Your task to perform on an android device: open app "Nova Launcher" (install if not already installed) and enter user name: "haggard@gmail.com" and password: "sadder" Image 0: 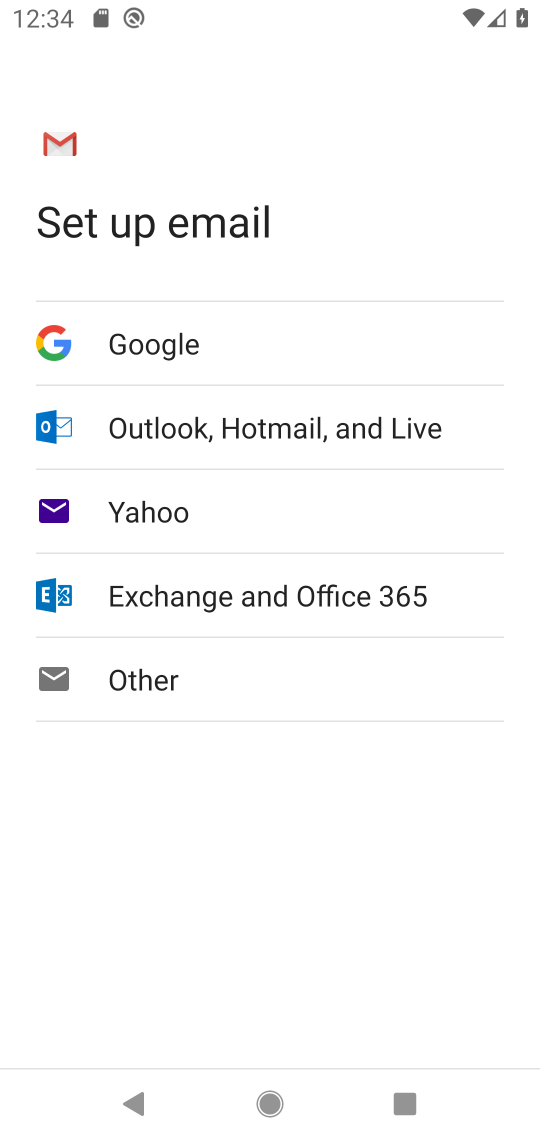
Step 0: press home button
Your task to perform on an android device: open app "Nova Launcher" (install if not already installed) and enter user name: "haggard@gmail.com" and password: "sadder" Image 1: 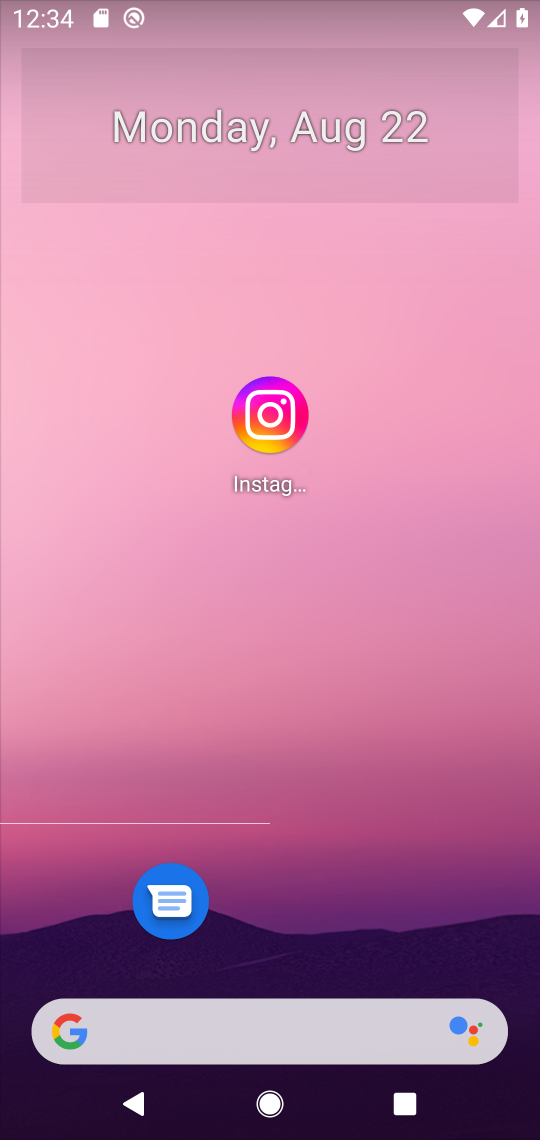
Step 1: drag from (361, 961) to (455, 118)
Your task to perform on an android device: open app "Nova Launcher" (install if not already installed) and enter user name: "haggard@gmail.com" and password: "sadder" Image 2: 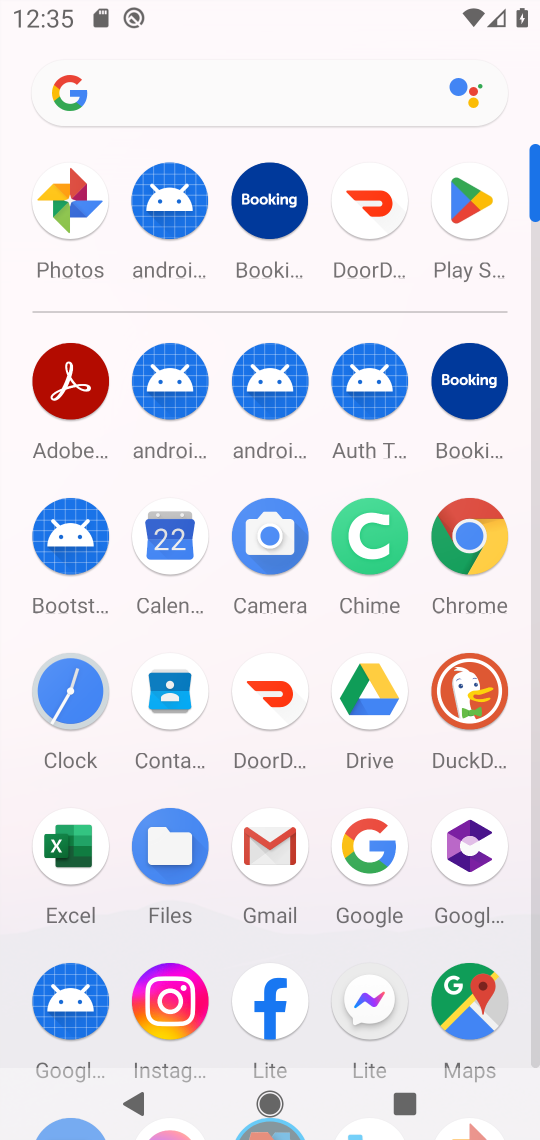
Step 2: click (449, 213)
Your task to perform on an android device: open app "Nova Launcher" (install if not already installed) and enter user name: "haggard@gmail.com" and password: "sadder" Image 3: 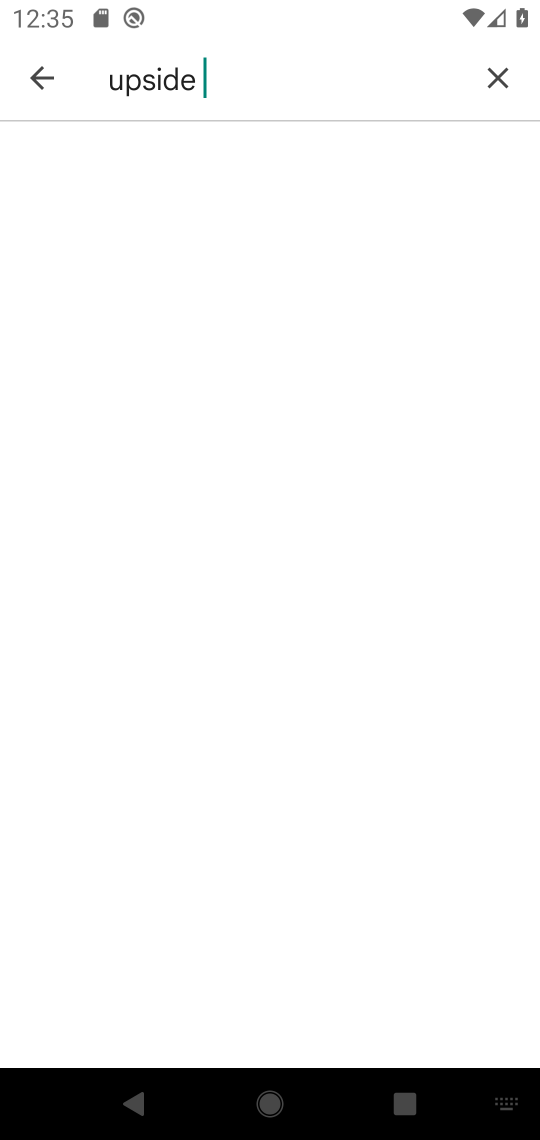
Step 3: click (483, 90)
Your task to perform on an android device: open app "Nova Launcher" (install if not already installed) and enter user name: "haggard@gmail.com" and password: "sadder" Image 4: 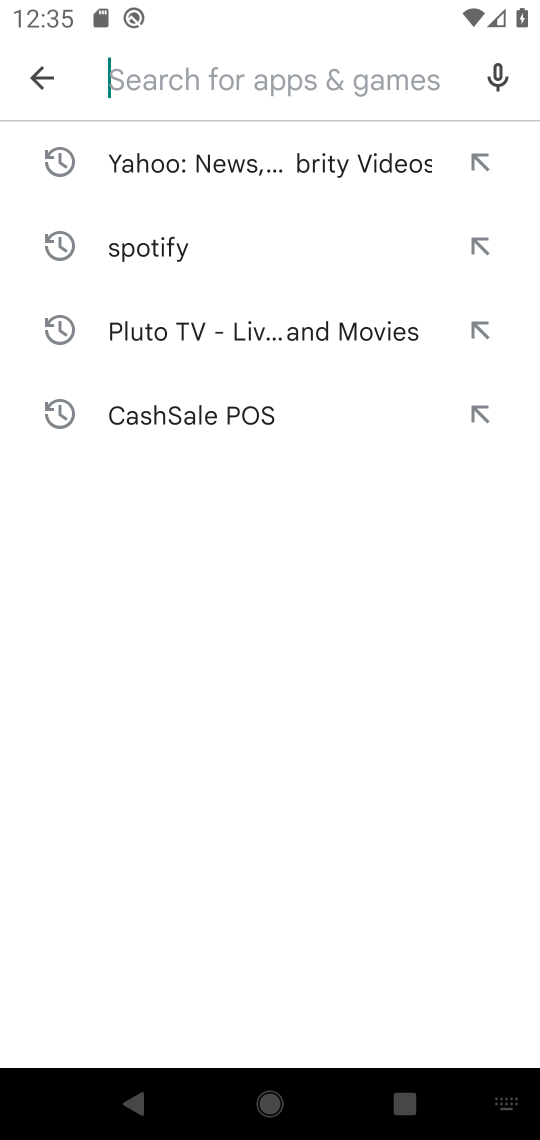
Step 4: type "nova"
Your task to perform on an android device: open app "Nova Launcher" (install if not already installed) and enter user name: "haggard@gmail.com" and password: "sadder" Image 5: 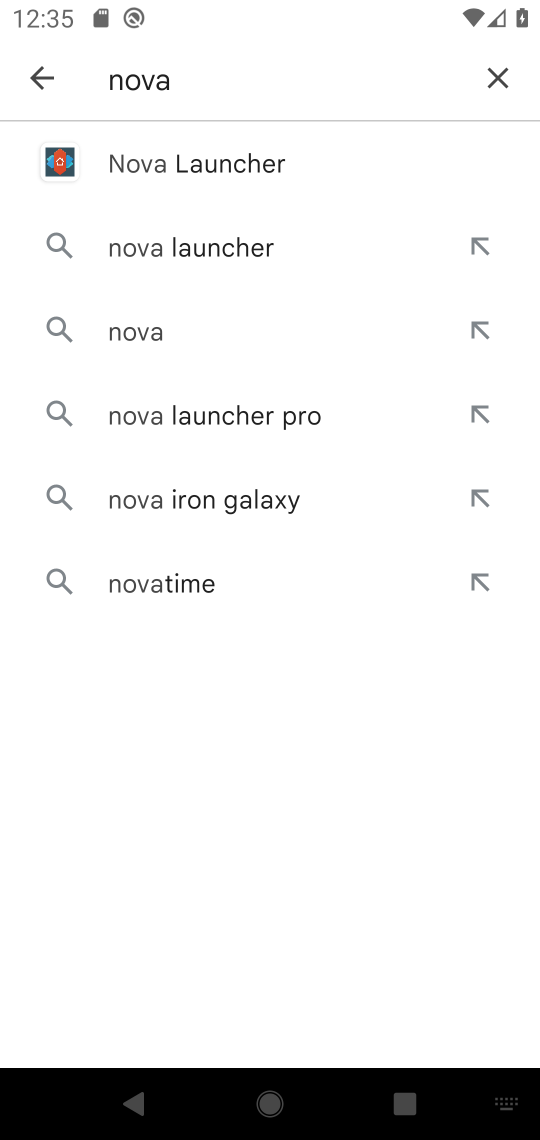
Step 5: click (243, 185)
Your task to perform on an android device: open app "Nova Launcher" (install if not already installed) and enter user name: "haggard@gmail.com" and password: "sadder" Image 6: 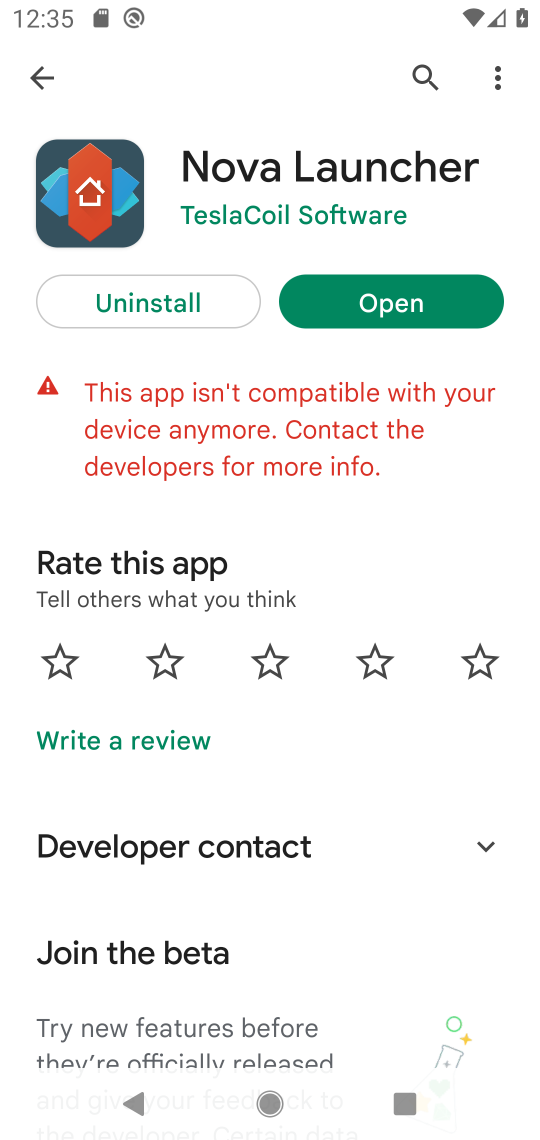
Step 6: click (356, 330)
Your task to perform on an android device: open app "Nova Launcher" (install if not already installed) and enter user name: "haggard@gmail.com" and password: "sadder" Image 7: 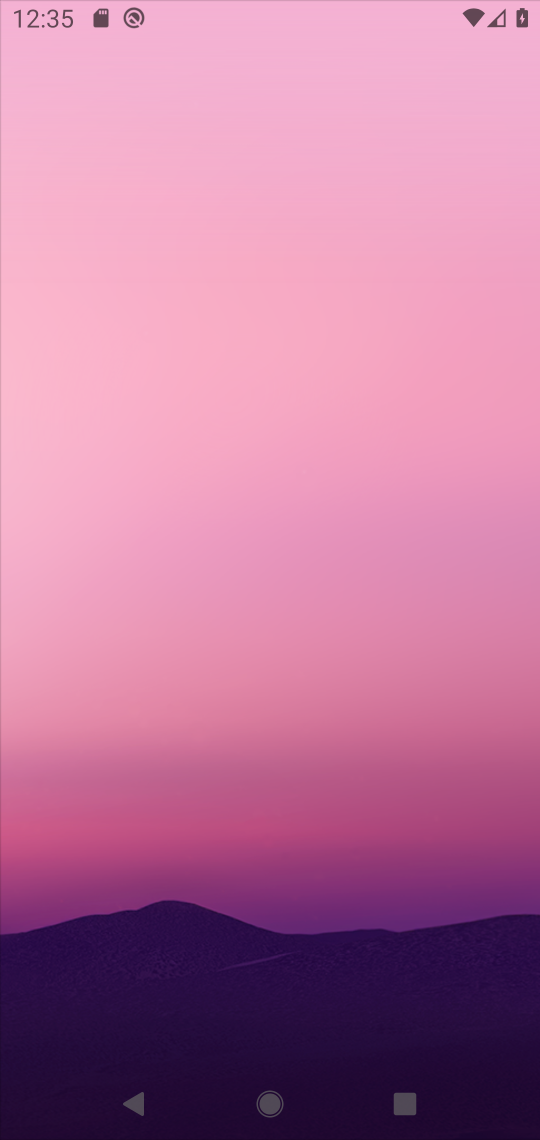
Step 7: task complete